Your task to perform on an android device: set default search engine in the chrome app Image 0: 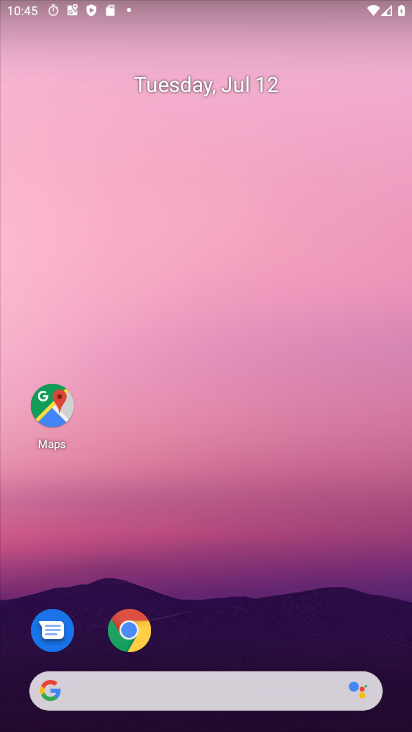
Step 0: drag from (273, 634) to (234, 107)
Your task to perform on an android device: set default search engine in the chrome app Image 1: 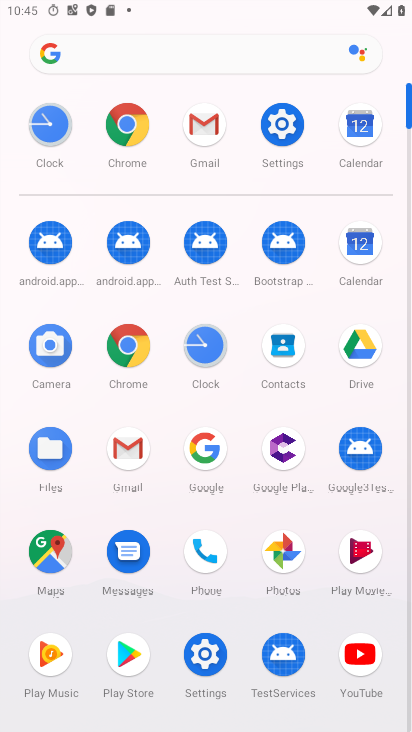
Step 1: click (126, 124)
Your task to perform on an android device: set default search engine in the chrome app Image 2: 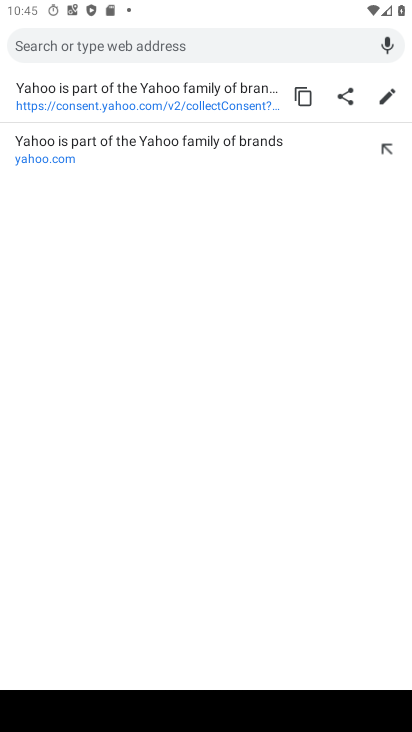
Step 2: press back button
Your task to perform on an android device: set default search engine in the chrome app Image 3: 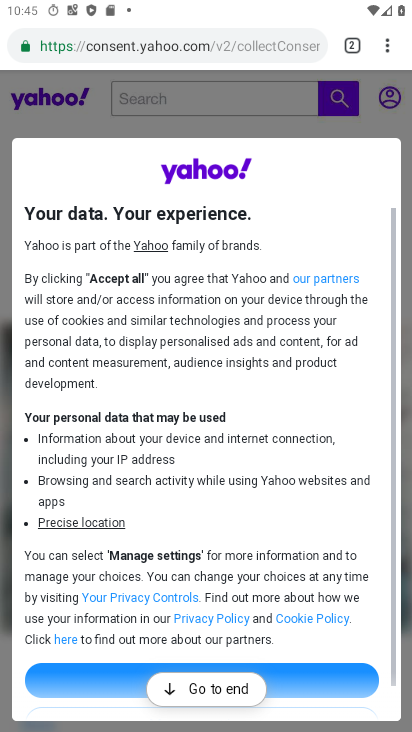
Step 3: click (383, 49)
Your task to perform on an android device: set default search engine in the chrome app Image 4: 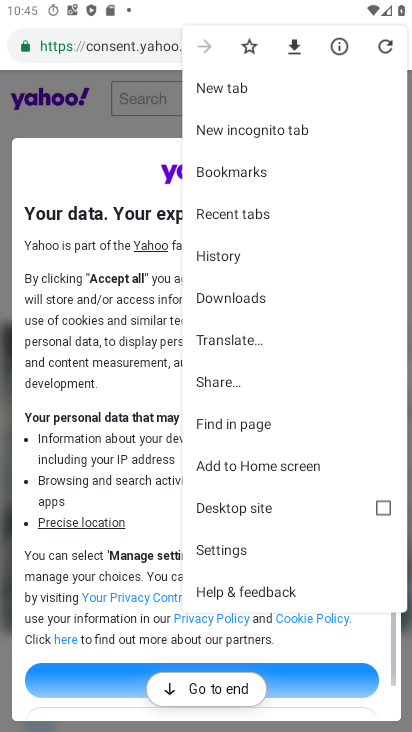
Step 4: click (240, 539)
Your task to perform on an android device: set default search engine in the chrome app Image 5: 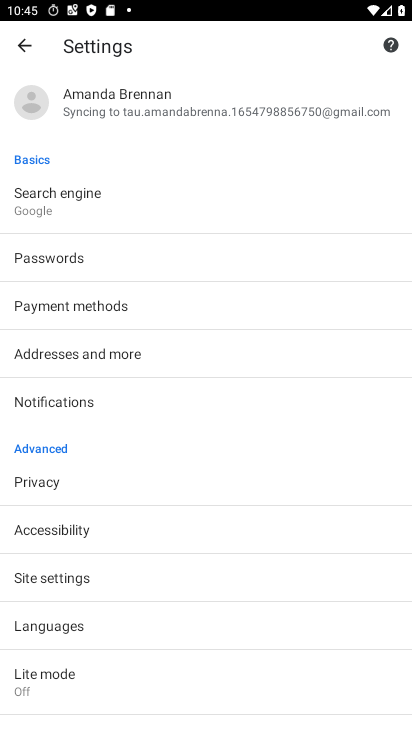
Step 5: click (62, 188)
Your task to perform on an android device: set default search engine in the chrome app Image 6: 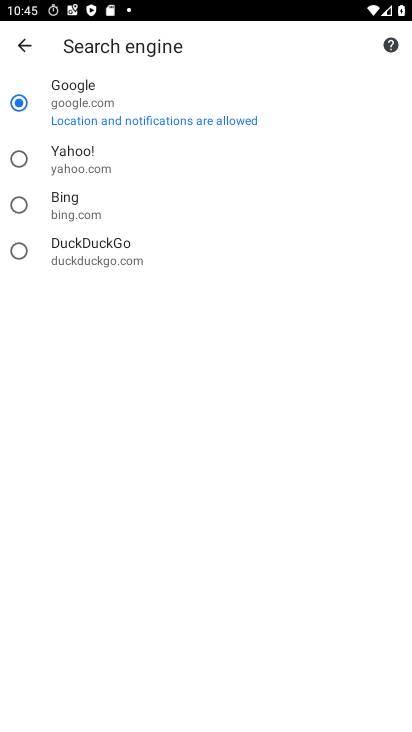
Step 6: click (19, 167)
Your task to perform on an android device: set default search engine in the chrome app Image 7: 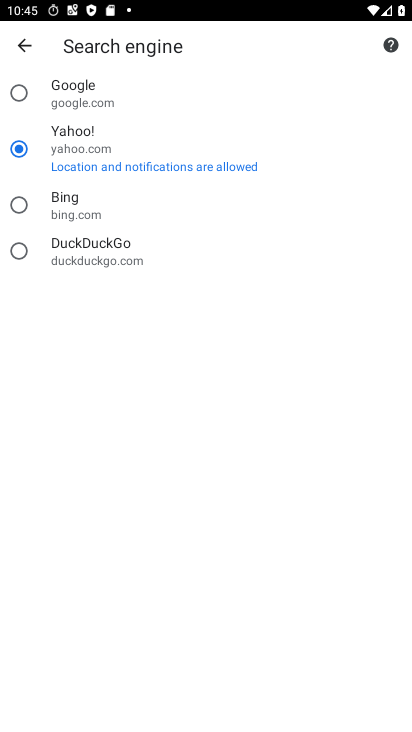
Step 7: task complete